Your task to perform on an android device: change the clock style Image 0: 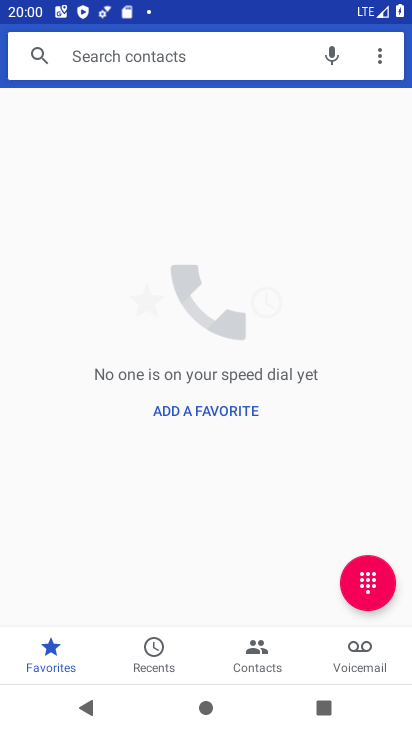
Step 0: press home button
Your task to perform on an android device: change the clock style Image 1: 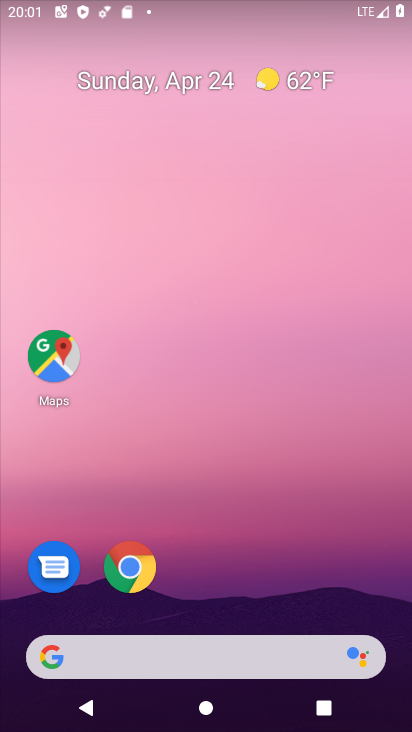
Step 1: drag from (228, 532) to (261, 100)
Your task to perform on an android device: change the clock style Image 2: 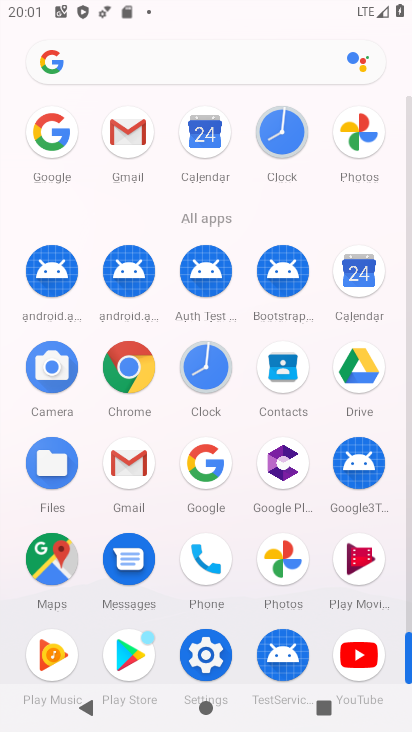
Step 2: click (207, 368)
Your task to perform on an android device: change the clock style Image 3: 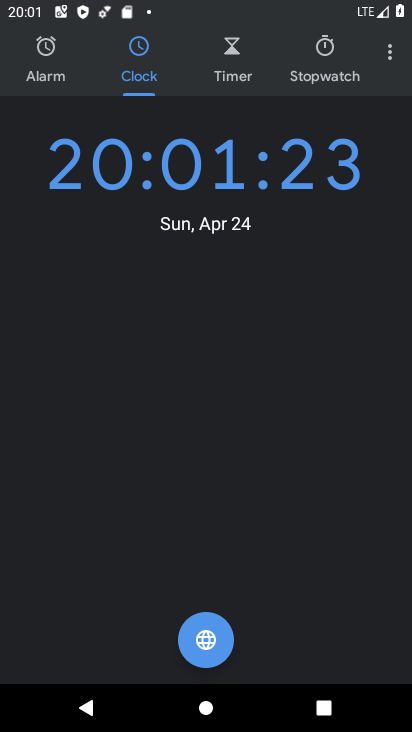
Step 3: click (392, 53)
Your task to perform on an android device: change the clock style Image 4: 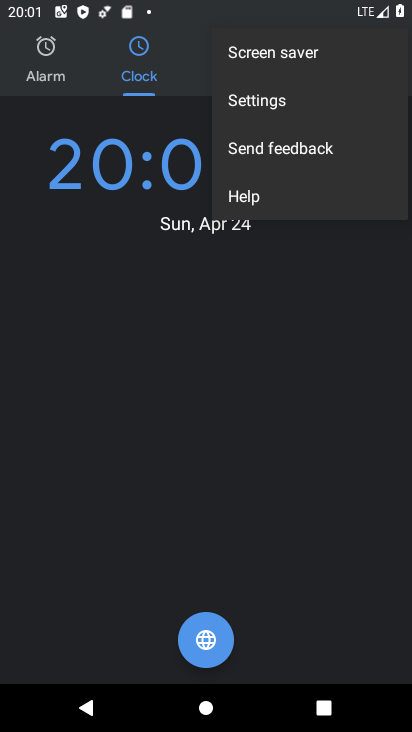
Step 4: click (281, 103)
Your task to perform on an android device: change the clock style Image 5: 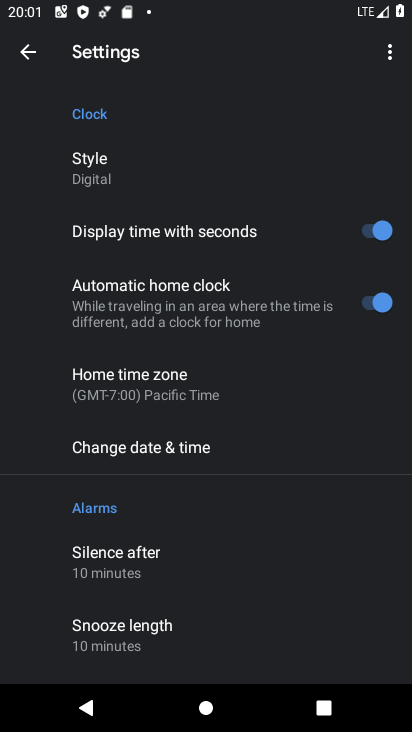
Step 5: click (97, 171)
Your task to perform on an android device: change the clock style Image 6: 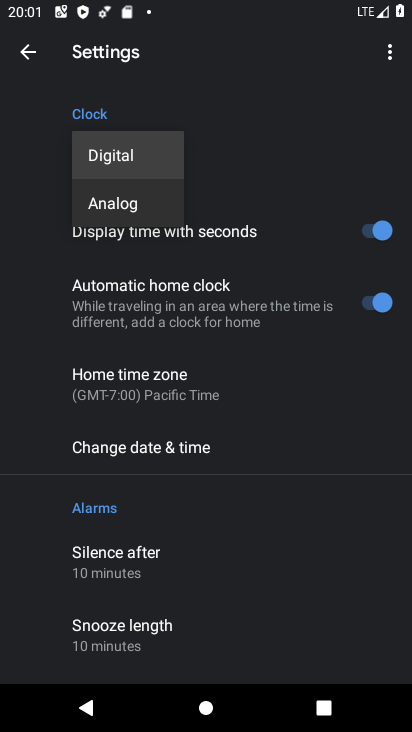
Step 6: click (108, 208)
Your task to perform on an android device: change the clock style Image 7: 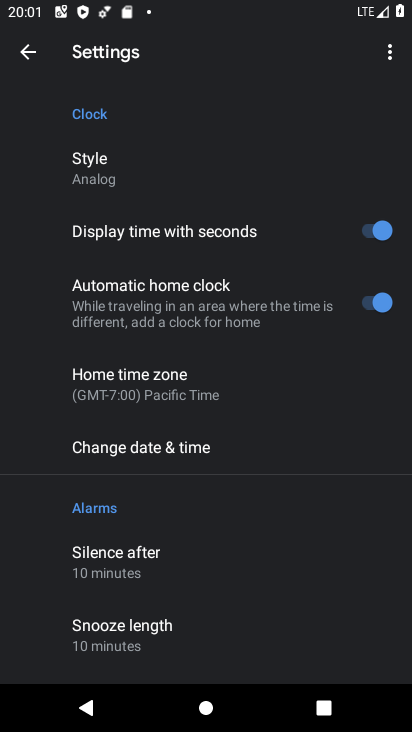
Step 7: task complete